Your task to perform on an android device: turn on notifications settings in the gmail app Image 0: 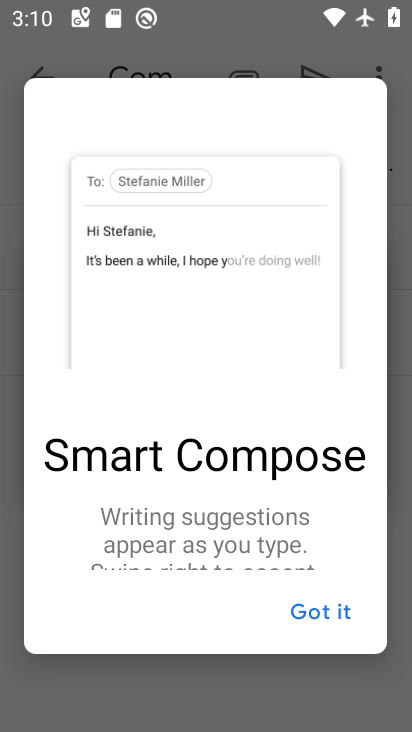
Step 0: press home button
Your task to perform on an android device: turn on notifications settings in the gmail app Image 1: 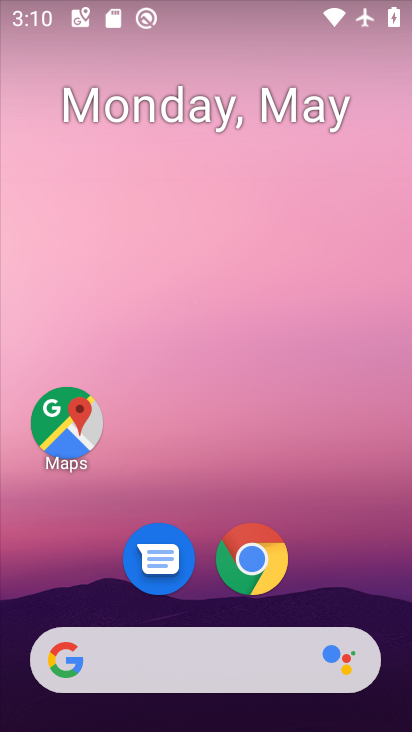
Step 1: drag from (300, 599) to (292, 107)
Your task to perform on an android device: turn on notifications settings in the gmail app Image 2: 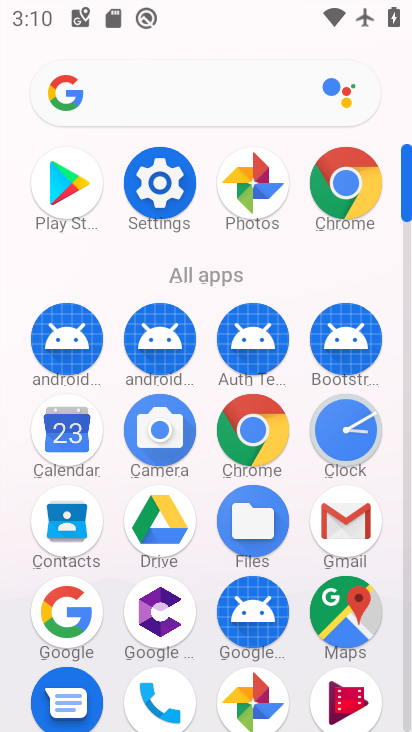
Step 2: click (332, 517)
Your task to perform on an android device: turn on notifications settings in the gmail app Image 3: 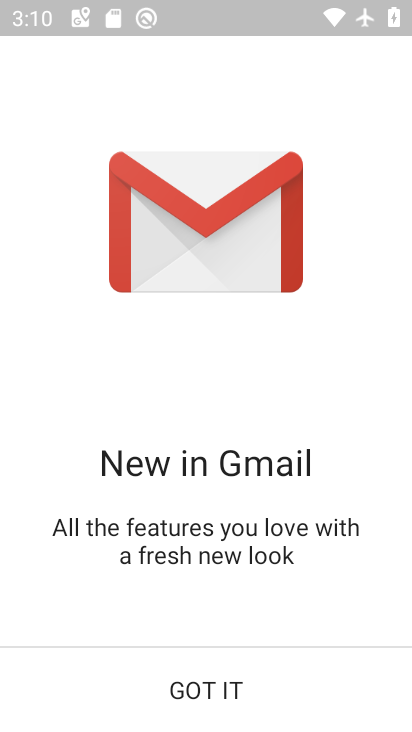
Step 3: click (205, 694)
Your task to perform on an android device: turn on notifications settings in the gmail app Image 4: 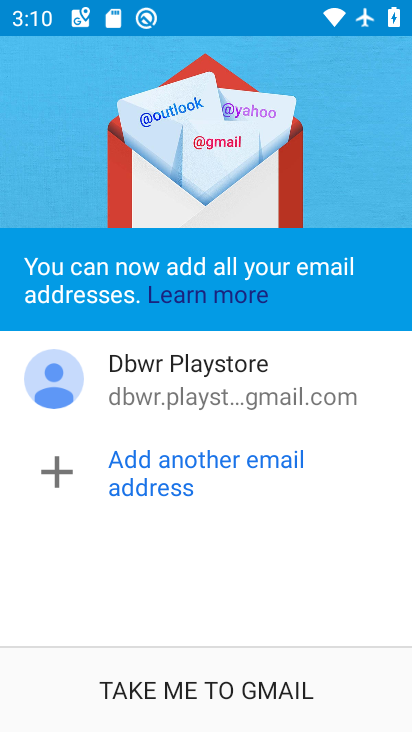
Step 4: click (205, 694)
Your task to perform on an android device: turn on notifications settings in the gmail app Image 5: 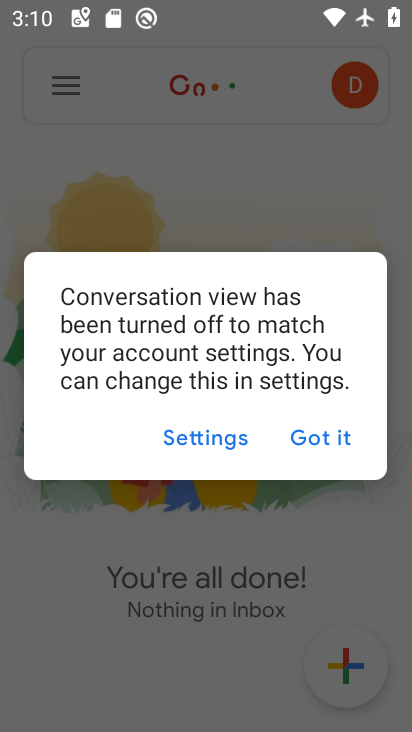
Step 5: click (327, 431)
Your task to perform on an android device: turn on notifications settings in the gmail app Image 6: 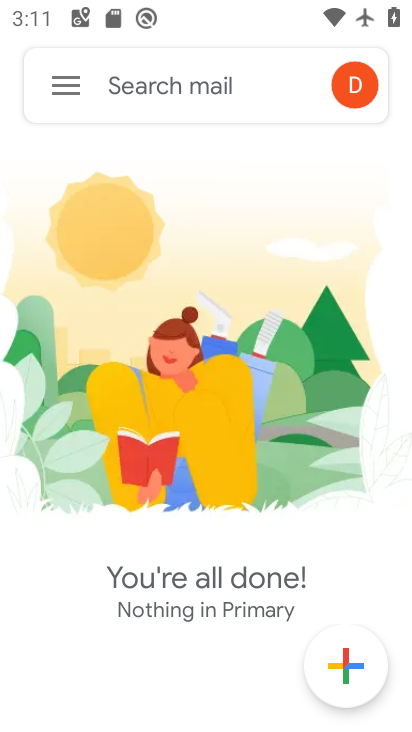
Step 6: click (61, 88)
Your task to perform on an android device: turn on notifications settings in the gmail app Image 7: 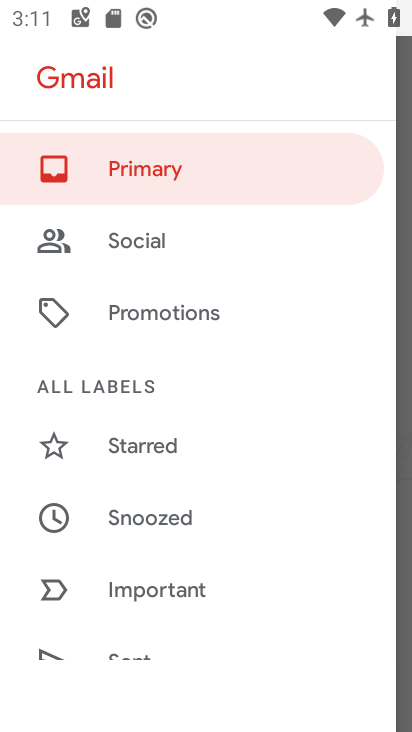
Step 7: drag from (180, 598) to (177, 231)
Your task to perform on an android device: turn on notifications settings in the gmail app Image 8: 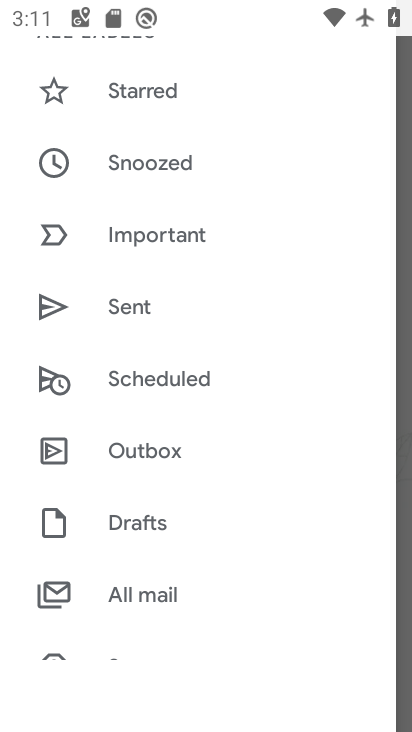
Step 8: drag from (174, 603) to (174, 186)
Your task to perform on an android device: turn on notifications settings in the gmail app Image 9: 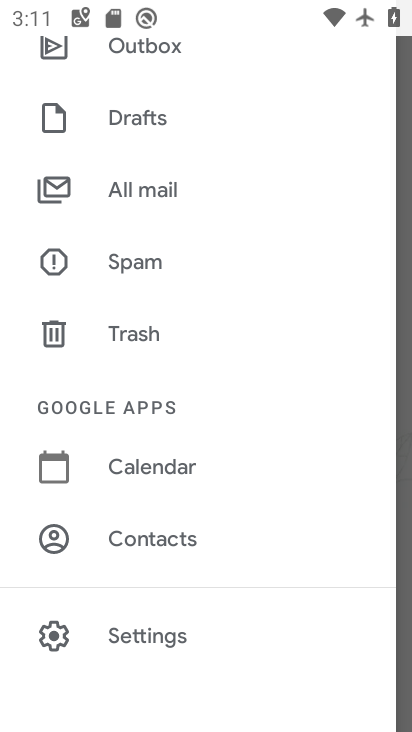
Step 9: click (156, 635)
Your task to perform on an android device: turn on notifications settings in the gmail app Image 10: 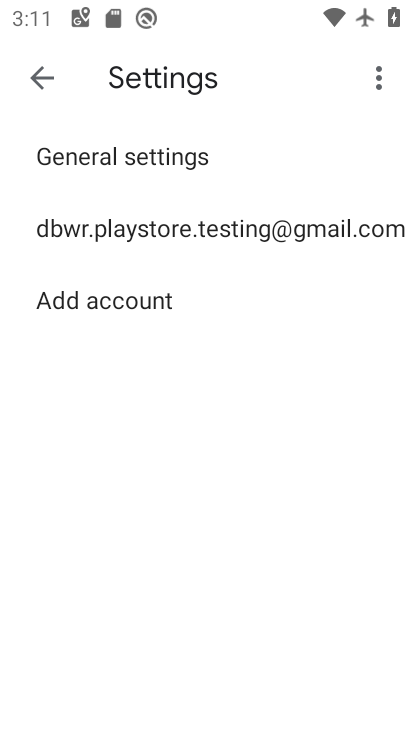
Step 10: click (138, 222)
Your task to perform on an android device: turn on notifications settings in the gmail app Image 11: 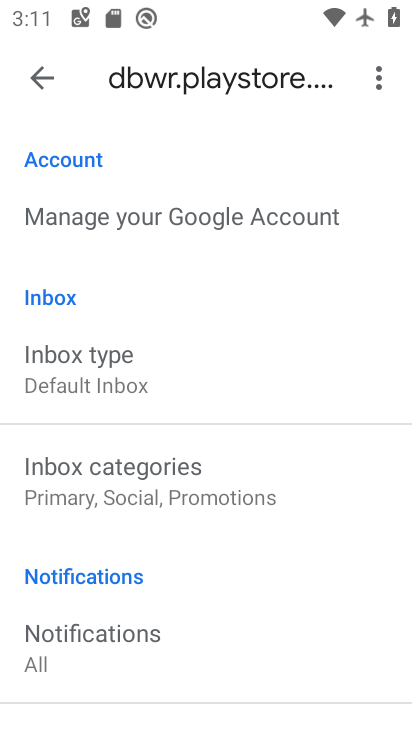
Step 11: click (109, 667)
Your task to perform on an android device: turn on notifications settings in the gmail app Image 12: 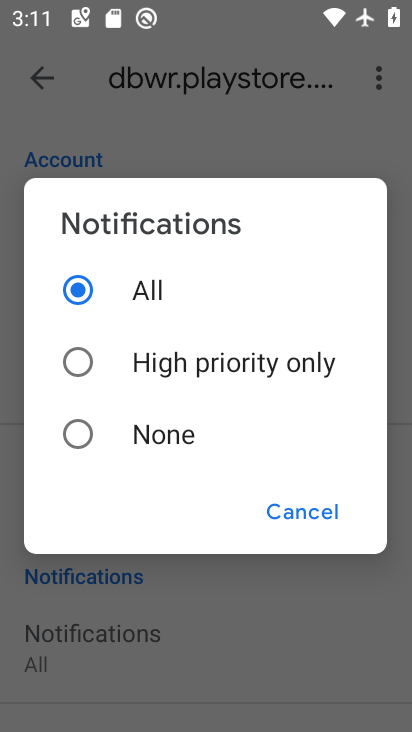
Step 12: task complete